Your task to perform on an android device: turn on javascript in the chrome app Image 0: 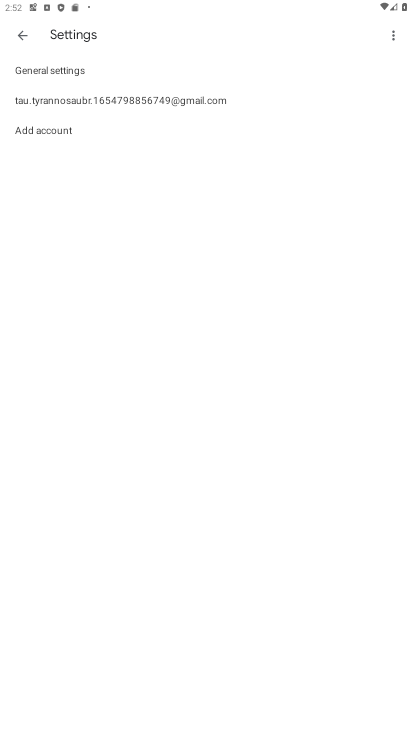
Step 0: press home button
Your task to perform on an android device: turn on javascript in the chrome app Image 1: 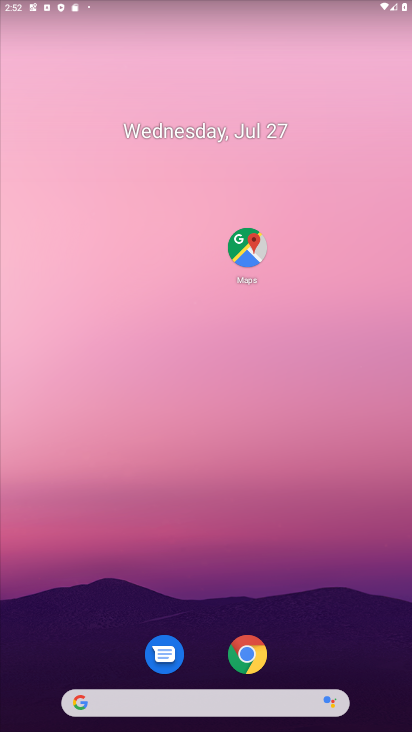
Step 1: click (257, 655)
Your task to perform on an android device: turn on javascript in the chrome app Image 2: 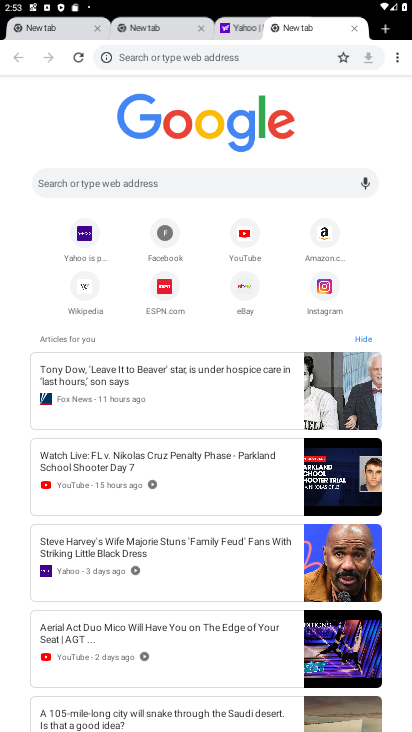
Step 2: click (394, 58)
Your task to perform on an android device: turn on javascript in the chrome app Image 3: 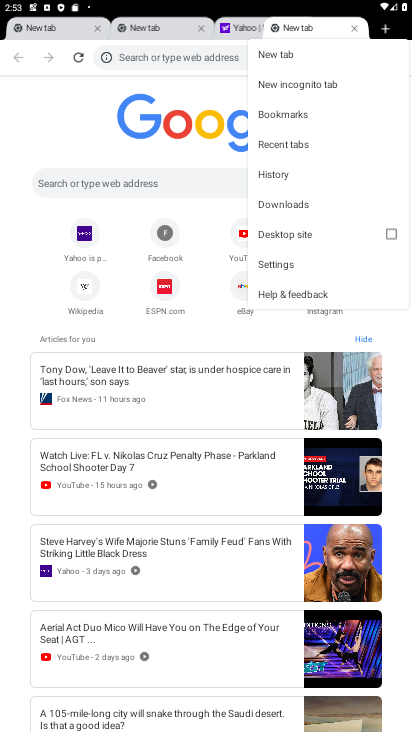
Step 3: click (277, 269)
Your task to perform on an android device: turn on javascript in the chrome app Image 4: 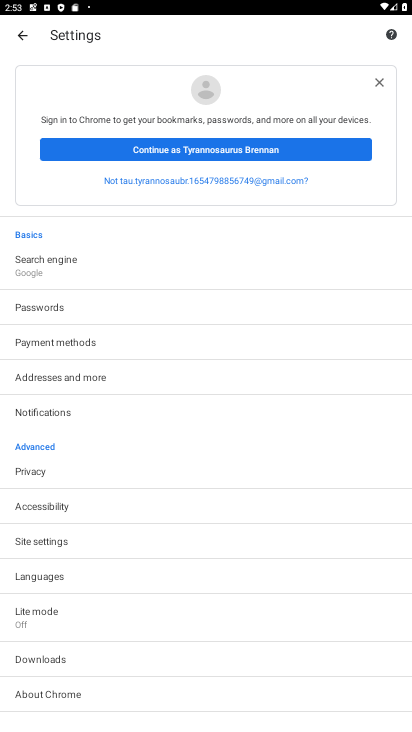
Step 4: click (61, 534)
Your task to perform on an android device: turn on javascript in the chrome app Image 5: 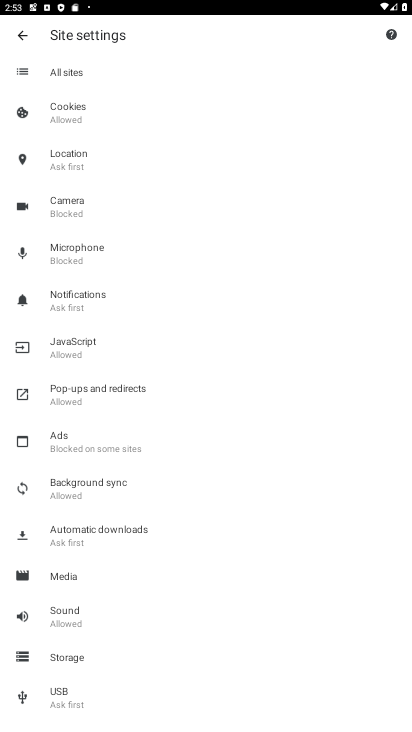
Step 5: click (109, 336)
Your task to perform on an android device: turn on javascript in the chrome app Image 6: 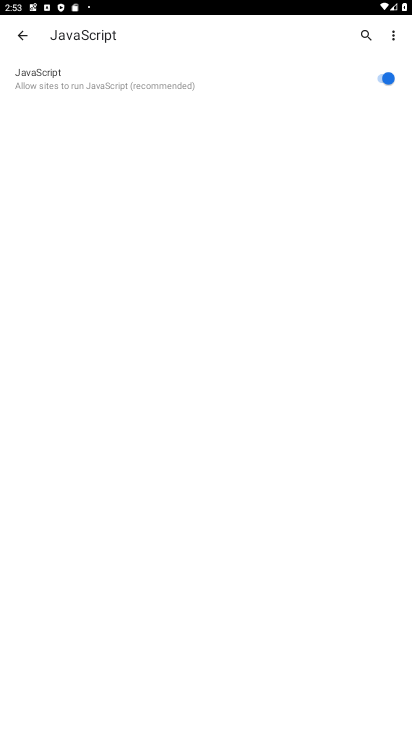
Step 6: task complete